Your task to perform on an android device: Go to ESPN.com Image 0: 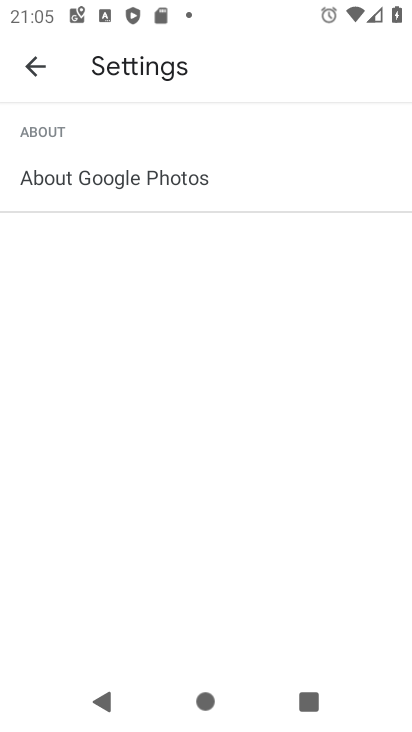
Step 0: press home button
Your task to perform on an android device: Go to ESPN.com Image 1: 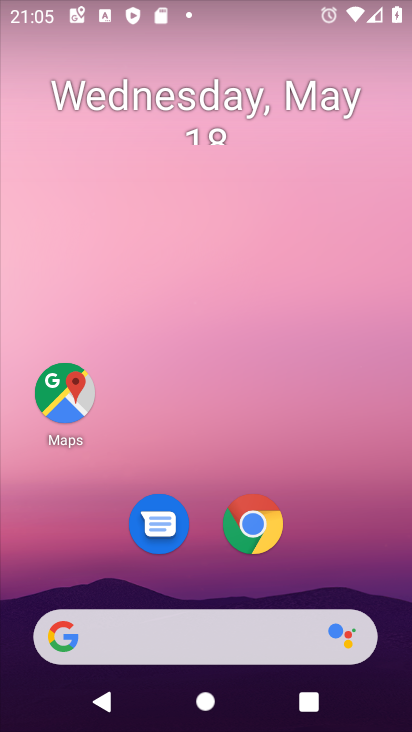
Step 1: click (257, 643)
Your task to perform on an android device: Go to ESPN.com Image 2: 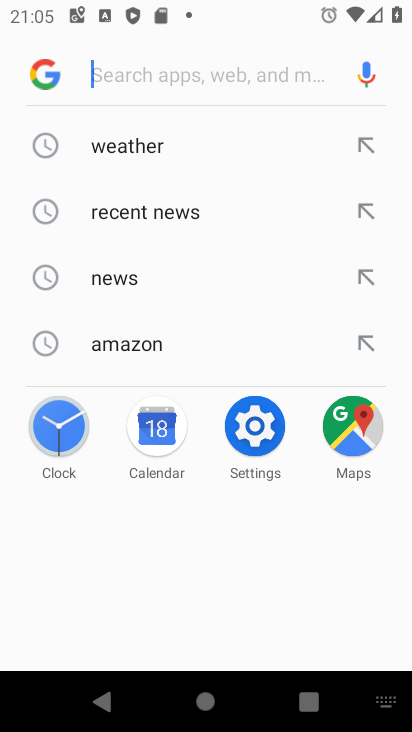
Step 2: type "espn.com"
Your task to perform on an android device: Go to ESPN.com Image 3: 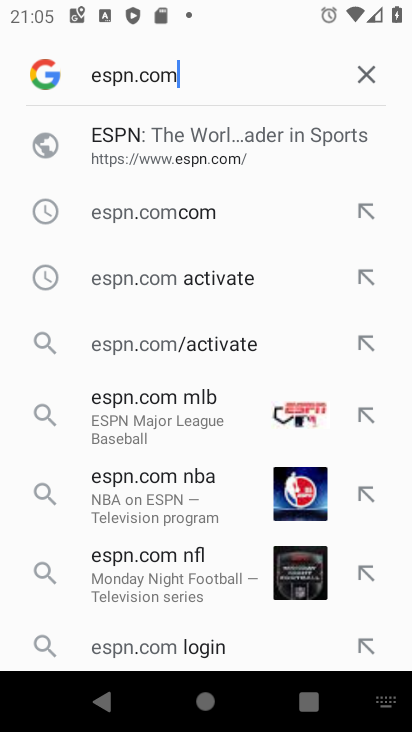
Step 3: click (99, 142)
Your task to perform on an android device: Go to ESPN.com Image 4: 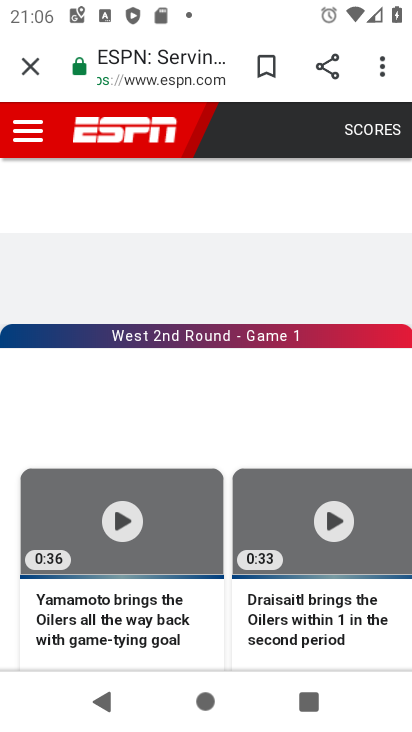
Step 4: task complete